Your task to perform on an android device: What's the weather going to be this weekend? Image 0: 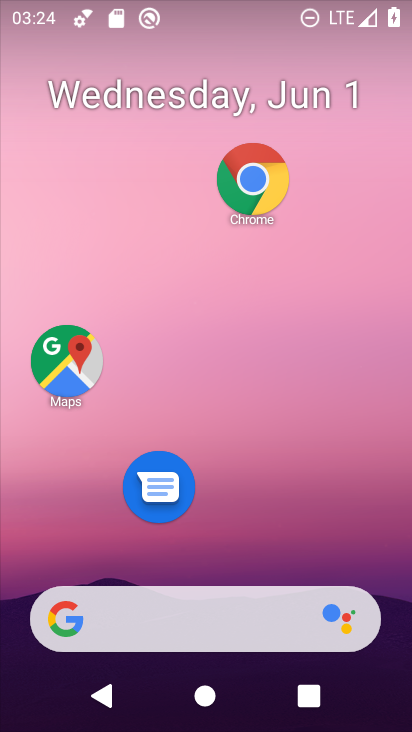
Step 0: drag from (278, 559) to (284, 503)
Your task to perform on an android device: What's the weather going to be this weekend? Image 1: 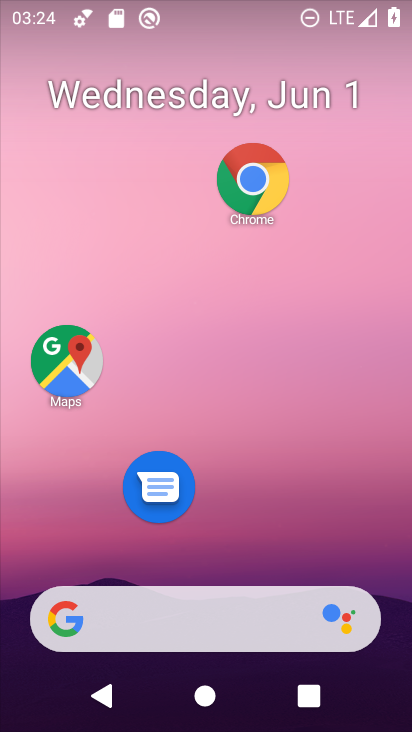
Step 1: click (230, 190)
Your task to perform on an android device: What's the weather going to be this weekend? Image 2: 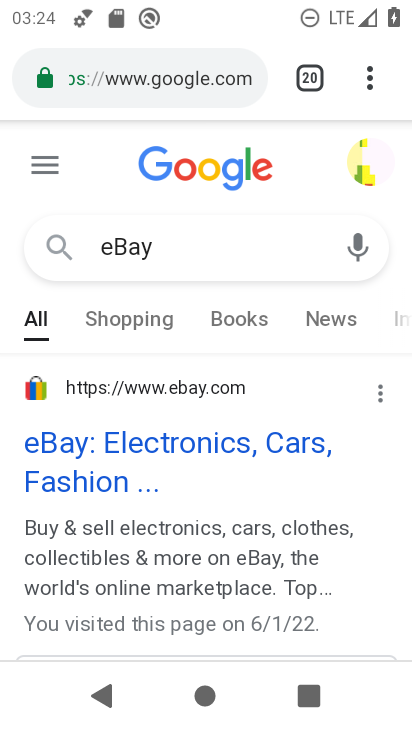
Step 2: click (375, 67)
Your task to perform on an android device: What's the weather going to be this weekend? Image 3: 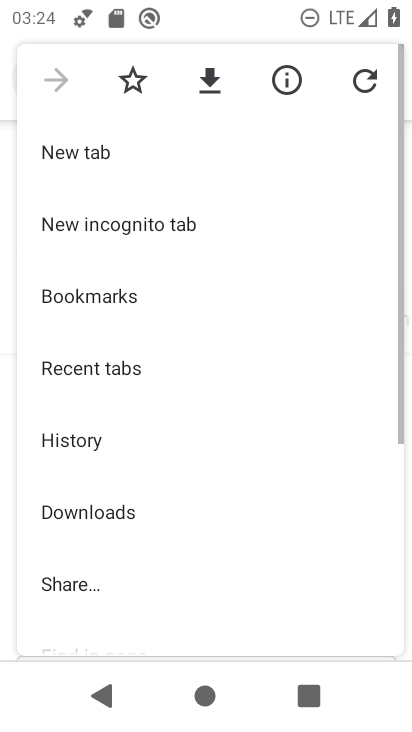
Step 3: click (139, 136)
Your task to perform on an android device: What's the weather going to be this weekend? Image 4: 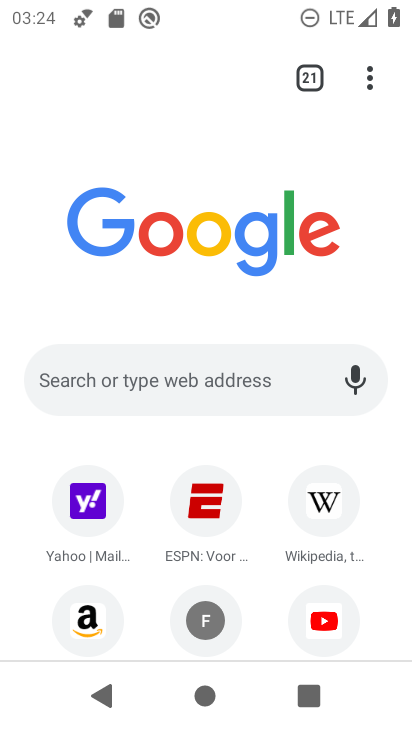
Step 4: click (155, 389)
Your task to perform on an android device: What's the weather going to be this weekend? Image 5: 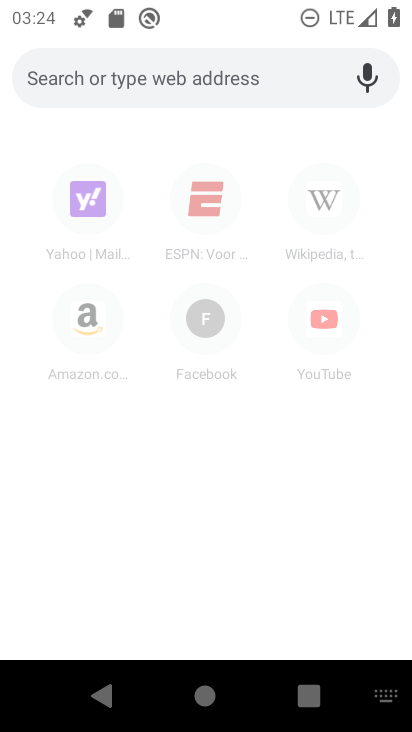
Step 5: type "What's the weather going to be this weekend?"
Your task to perform on an android device: What's the weather going to be this weekend? Image 6: 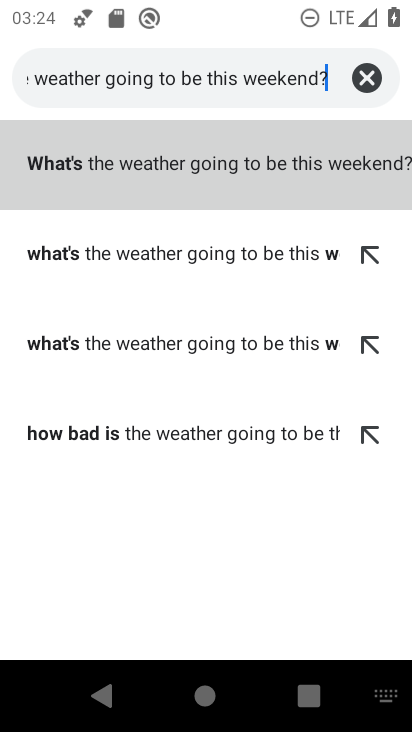
Step 6: click (211, 144)
Your task to perform on an android device: What's the weather going to be this weekend? Image 7: 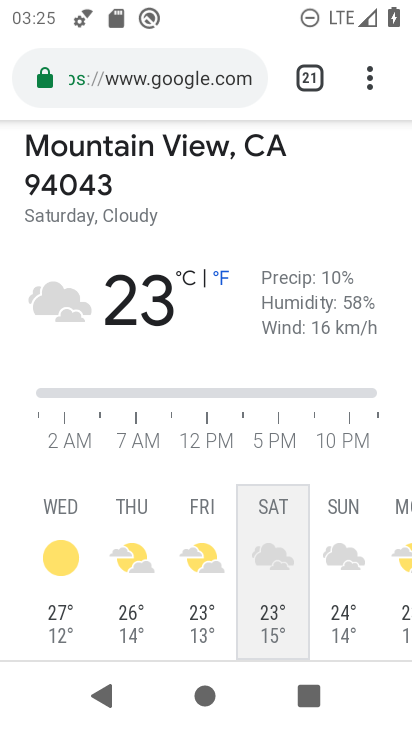
Step 7: task complete